Your task to perform on an android device: turn on sleep mode Image 0: 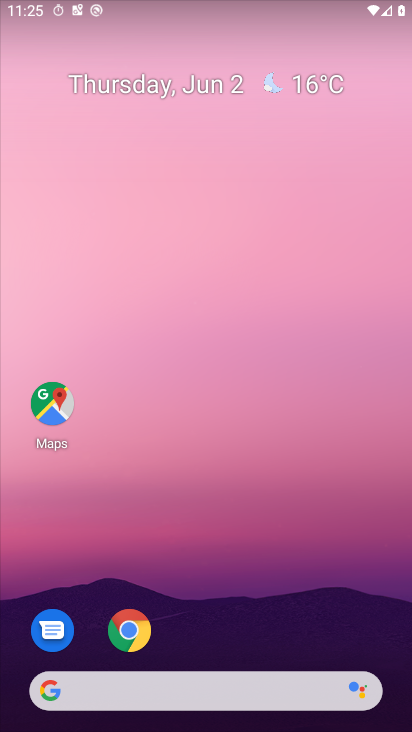
Step 0: drag from (222, 625) to (277, 0)
Your task to perform on an android device: turn on sleep mode Image 1: 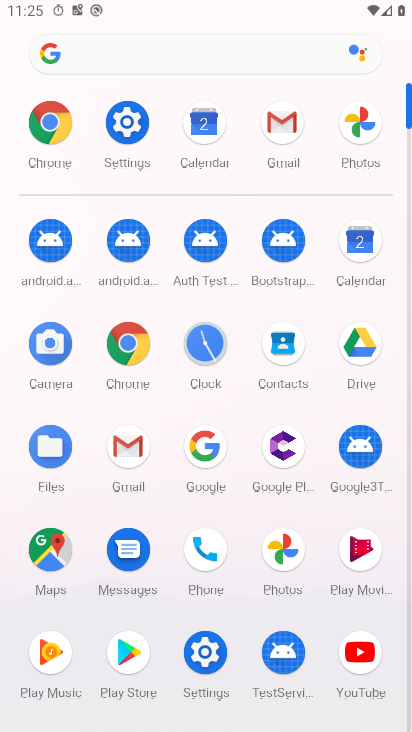
Step 1: click (124, 134)
Your task to perform on an android device: turn on sleep mode Image 2: 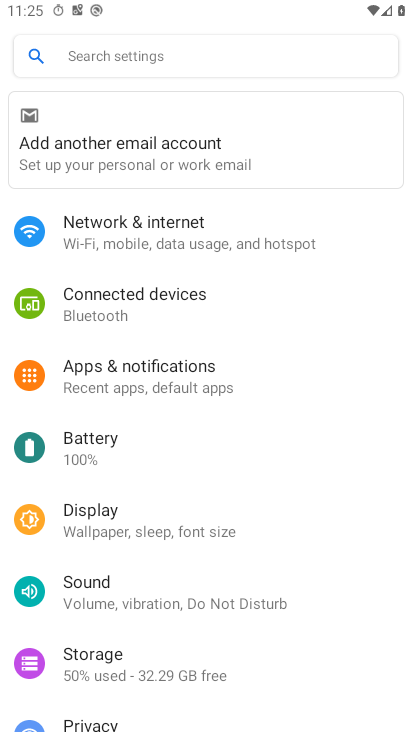
Step 2: click (240, 45)
Your task to perform on an android device: turn on sleep mode Image 3: 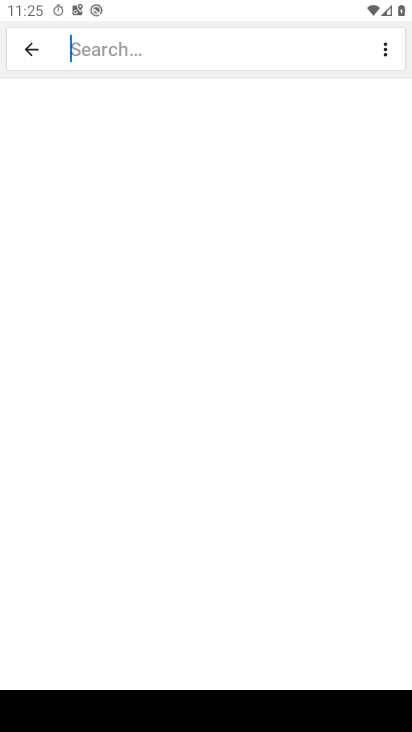
Step 3: type "sleep mode"
Your task to perform on an android device: turn on sleep mode Image 4: 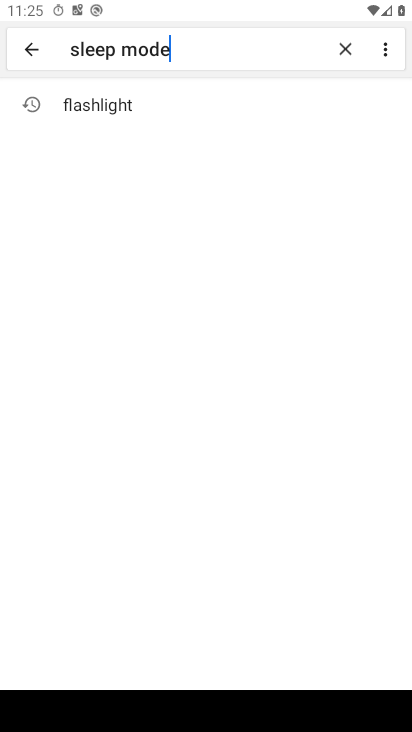
Step 4: click (344, 374)
Your task to perform on an android device: turn on sleep mode Image 5: 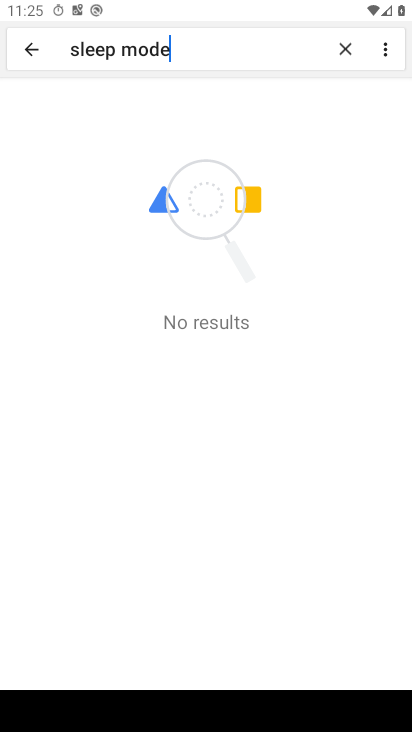
Step 5: task complete